Your task to perform on an android device: Open Reddit.com Image 0: 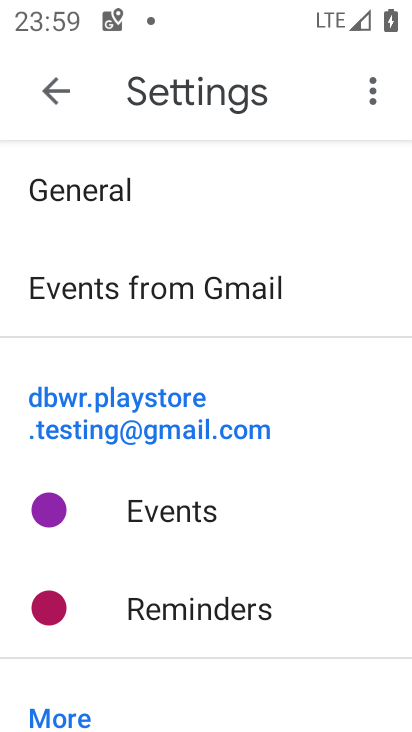
Step 0: press back button
Your task to perform on an android device: Open Reddit.com Image 1: 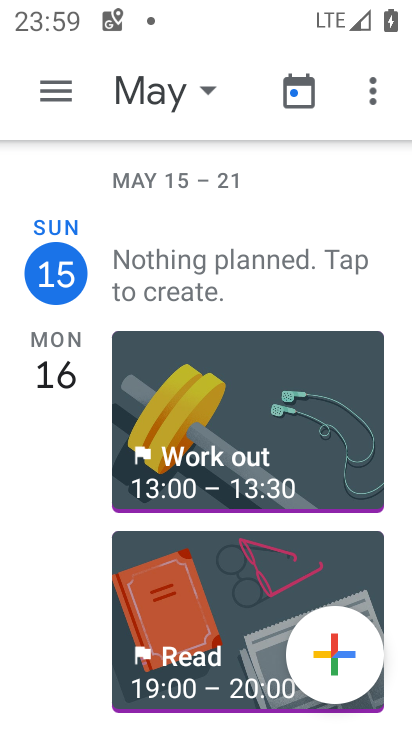
Step 1: press back button
Your task to perform on an android device: Open Reddit.com Image 2: 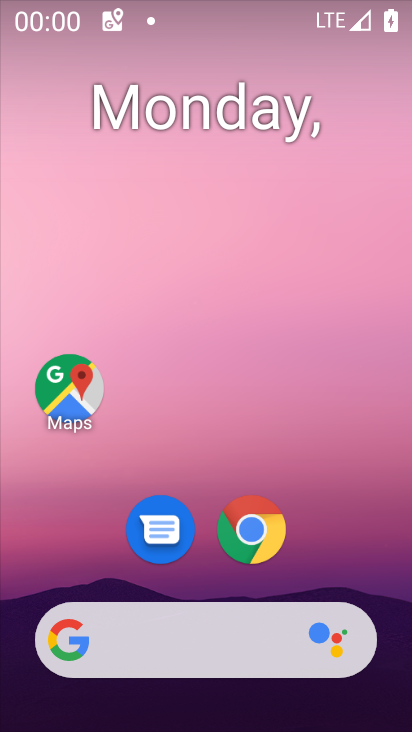
Step 2: click (251, 526)
Your task to perform on an android device: Open Reddit.com Image 3: 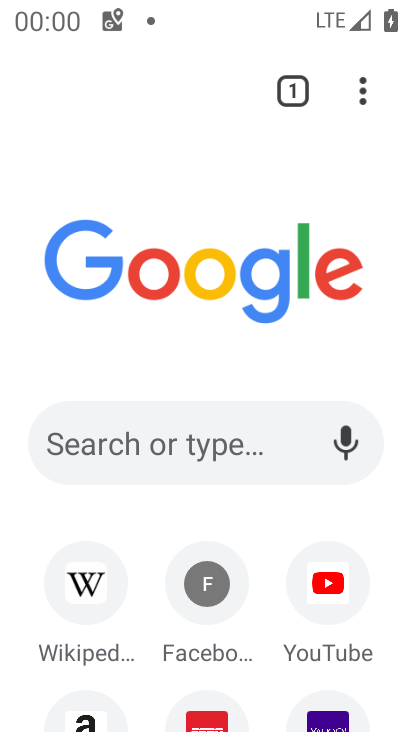
Step 3: click (228, 444)
Your task to perform on an android device: Open Reddit.com Image 4: 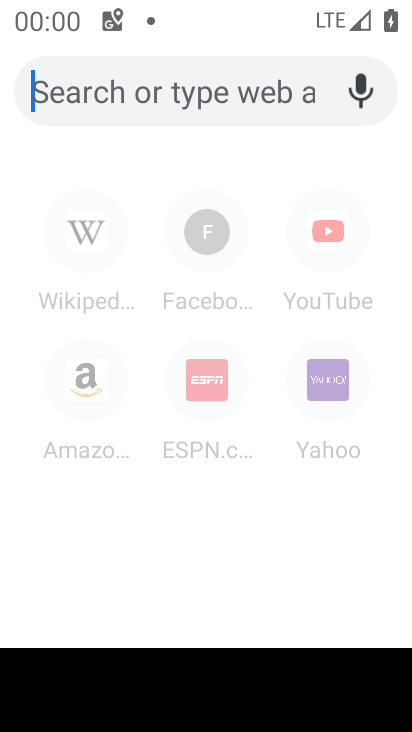
Step 4: type "Reddit.com"
Your task to perform on an android device: Open Reddit.com Image 5: 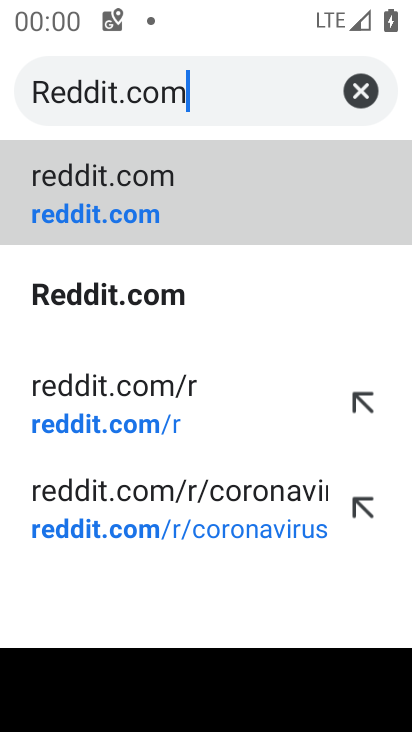
Step 5: click (153, 302)
Your task to perform on an android device: Open Reddit.com Image 6: 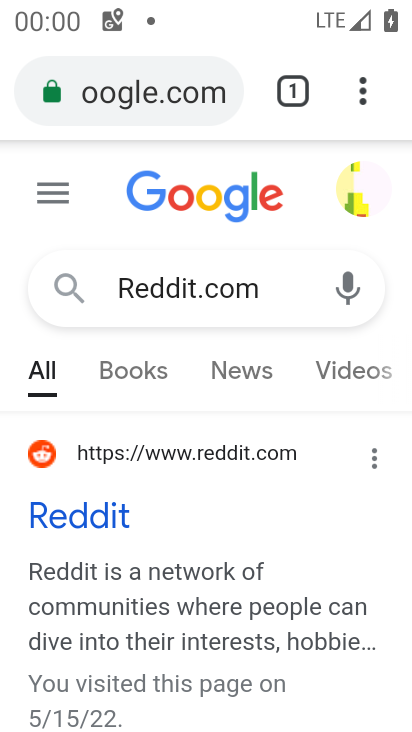
Step 6: click (75, 517)
Your task to perform on an android device: Open Reddit.com Image 7: 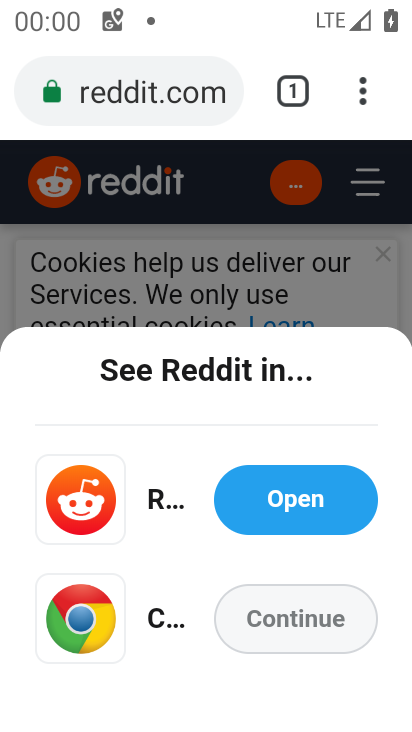
Step 7: click (287, 622)
Your task to perform on an android device: Open Reddit.com Image 8: 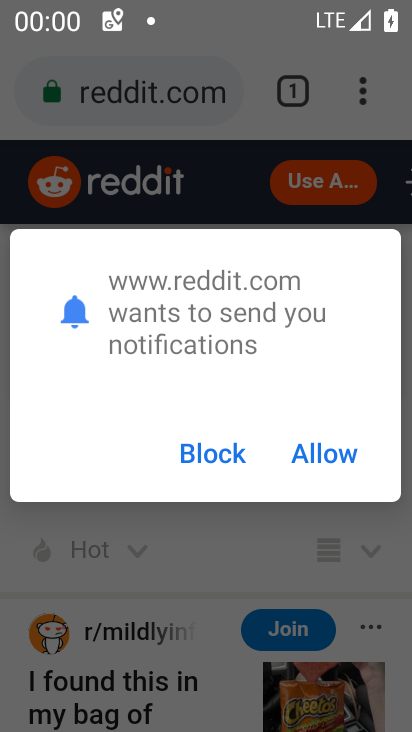
Step 8: click (322, 457)
Your task to perform on an android device: Open Reddit.com Image 9: 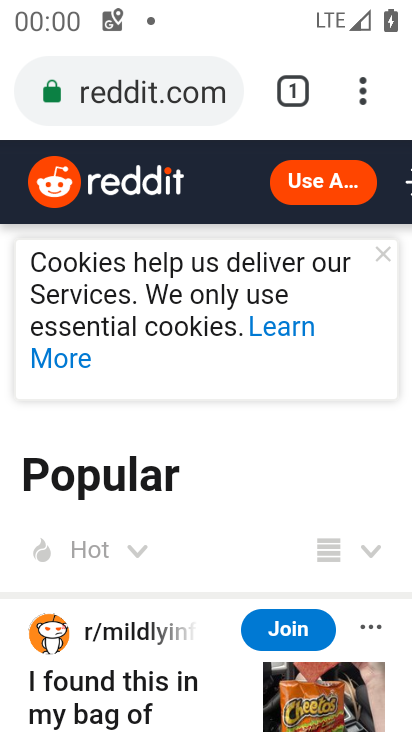
Step 9: task complete